Your task to perform on an android device: snooze an email in the gmail app Image 0: 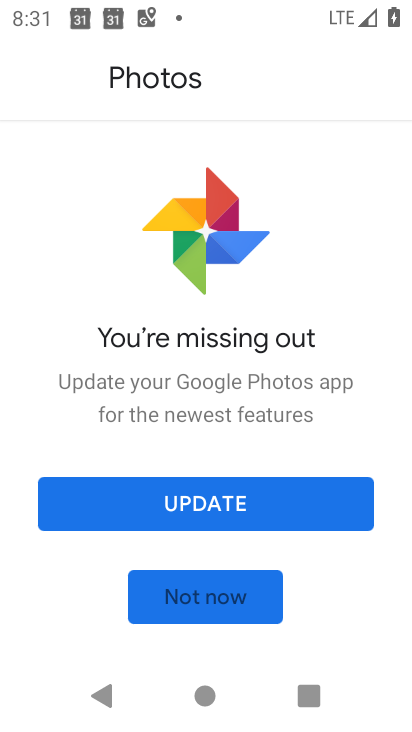
Step 0: press home button
Your task to perform on an android device: snooze an email in the gmail app Image 1: 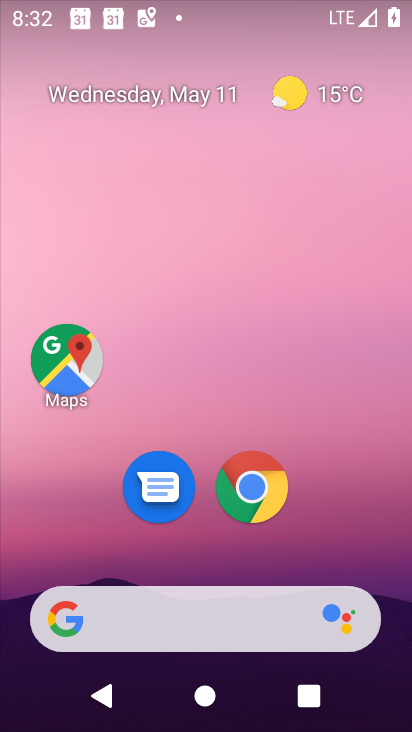
Step 1: drag from (298, 631) to (386, 202)
Your task to perform on an android device: snooze an email in the gmail app Image 2: 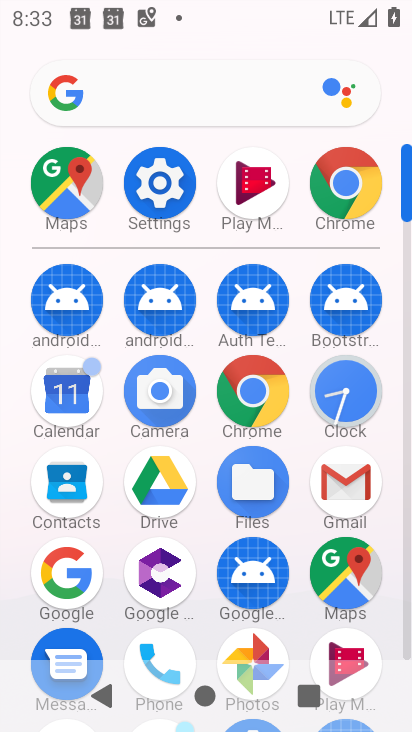
Step 2: click (350, 507)
Your task to perform on an android device: snooze an email in the gmail app Image 3: 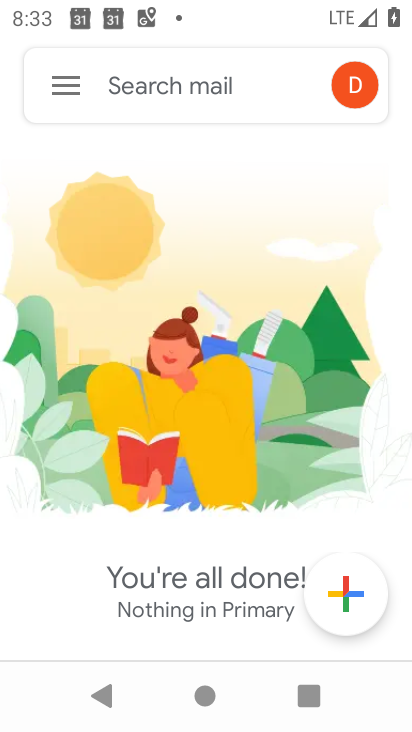
Step 3: click (63, 68)
Your task to perform on an android device: snooze an email in the gmail app Image 4: 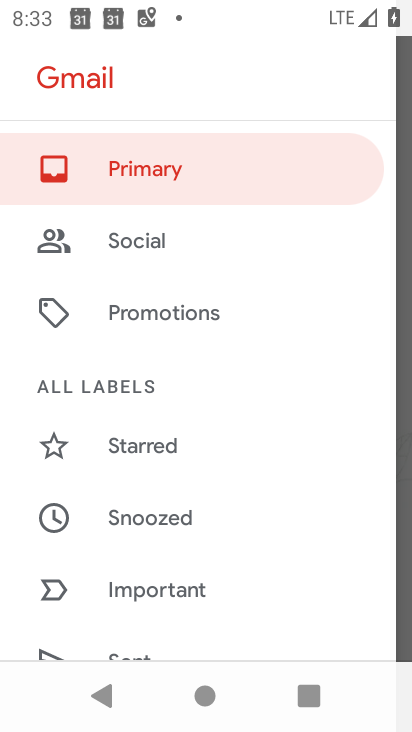
Step 4: click (145, 518)
Your task to perform on an android device: snooze an email in the gmail app Image 5: 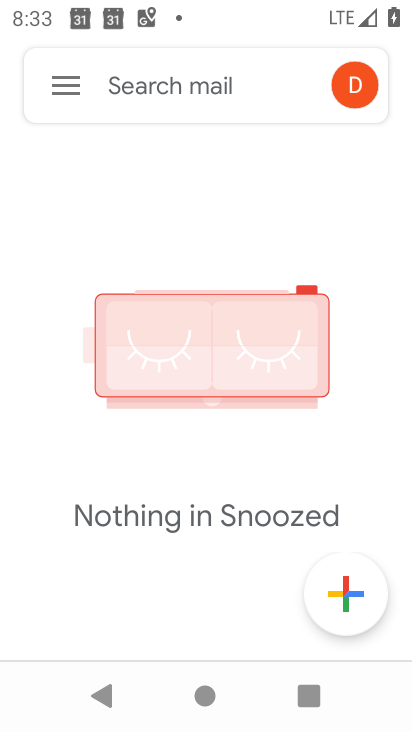
Step 5: task complete